Your task to perform on an android device: allow cookies in the chrome app Image 0: 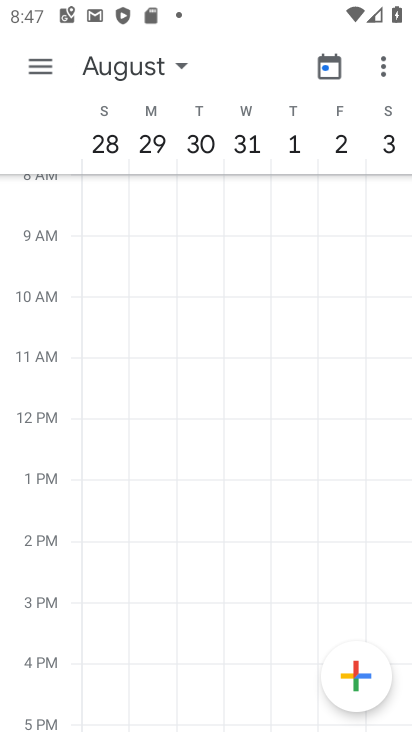
Step 0: press home button
Your task to perform on an android device: allow cookies in the chrome app Image 1: 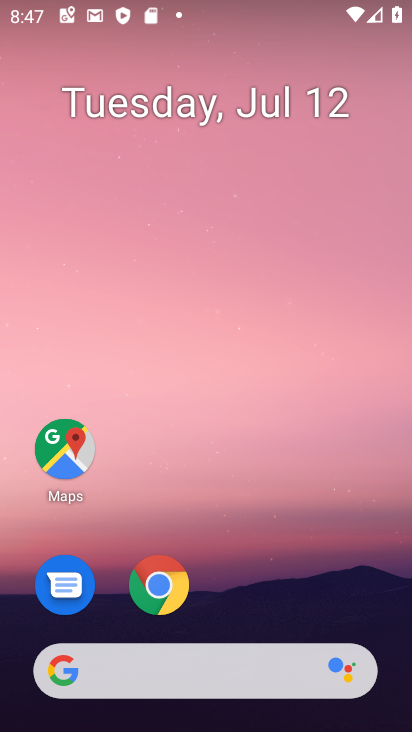
Step 1: click (161, 580)
Your task to perform on an android device: allow cookies in the chrome app Image 2: 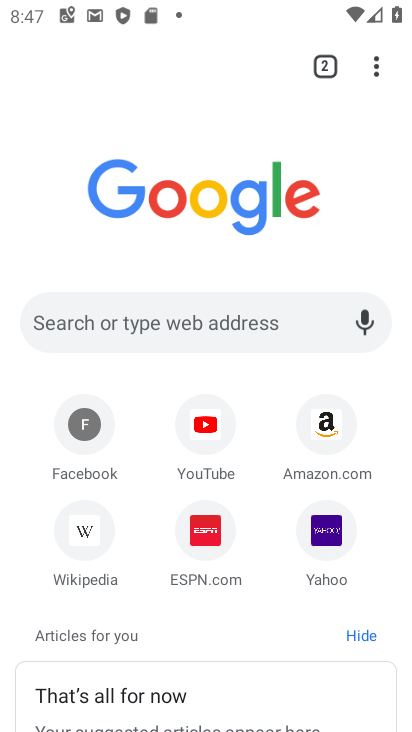
Step 2: click (375, 59)
Your task to perform on an android device: allow cookies in the chrome app Image 3: 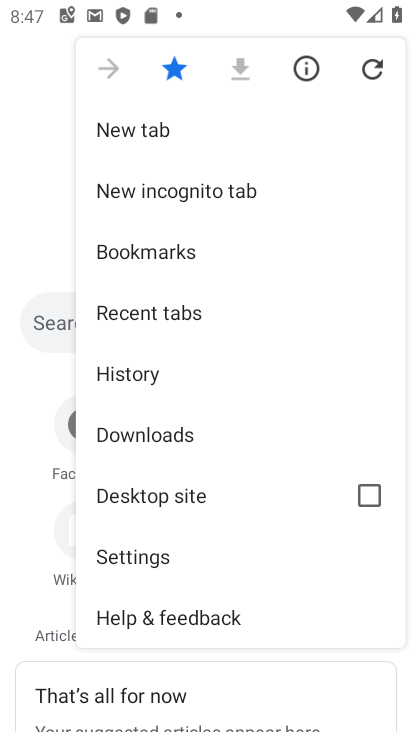
Step 3: click (162, 558)
Your task to perform on an android device: allow cookies in the chrome app Image 4: 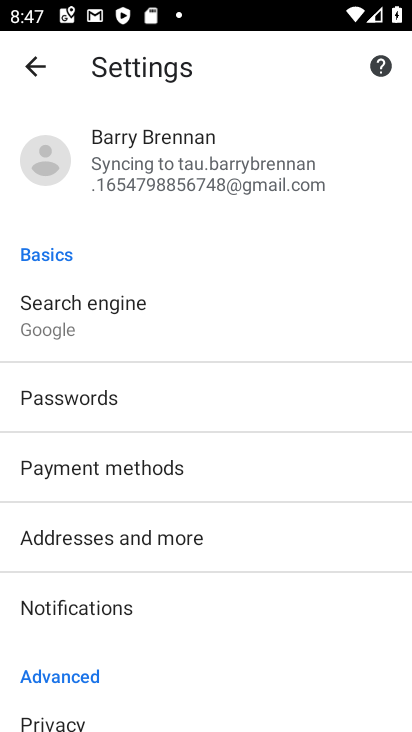
Step 4: drag from (200, 617) to (207, 252)
Your task to perform on an android device: allow cookies in the chrome app Image 5: 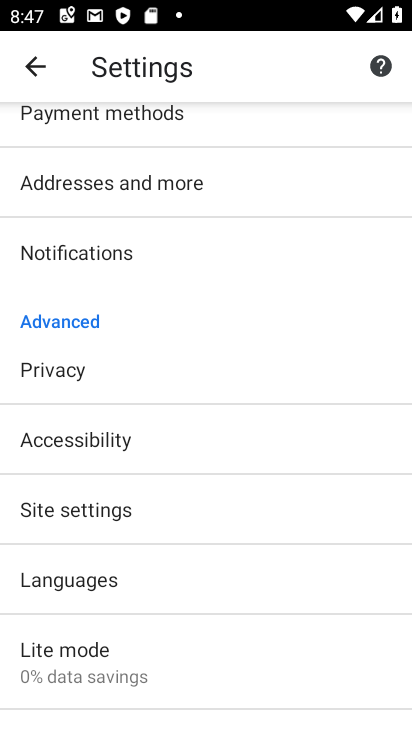
Step 5: click (99, 508)
Your task to perform on an android device: allow cookies in the chrome app Image 6: 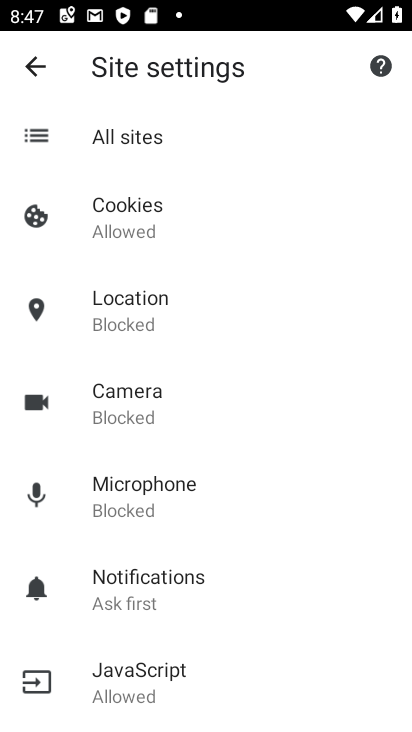
Step 6: click (146, 217)
Your task to perform on an android device: allow cookies in the chrome app Image 7: 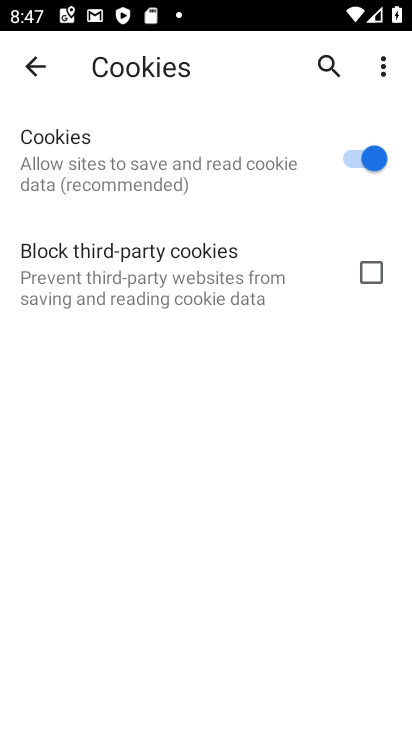
Step 7: task complete